Your task to perform on an android device: turn off picture-in-picture Image 0: 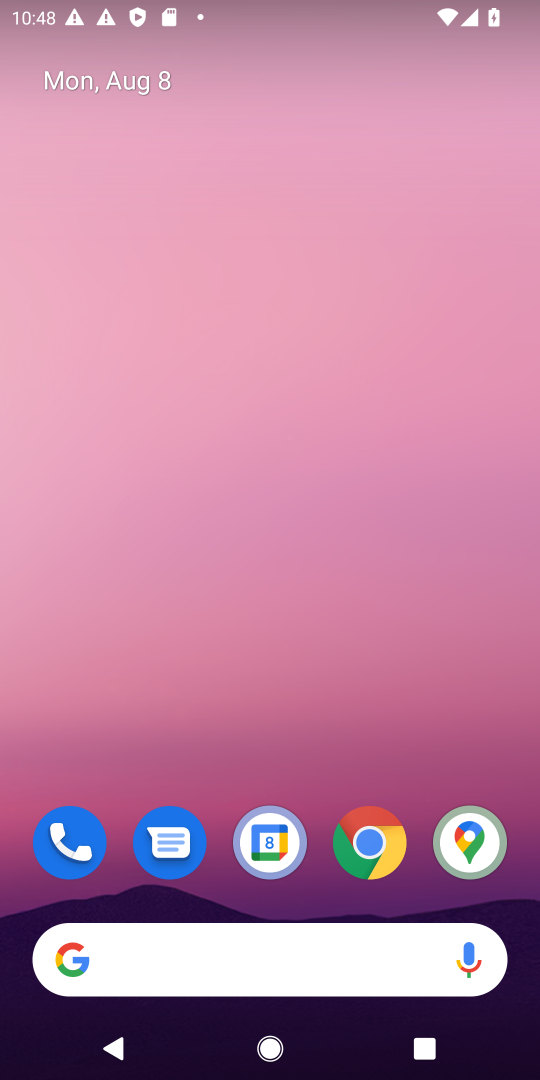
Step 0: click (377, 843)
Your task to perform on an android device: turn off picture-in-picture Image 1: 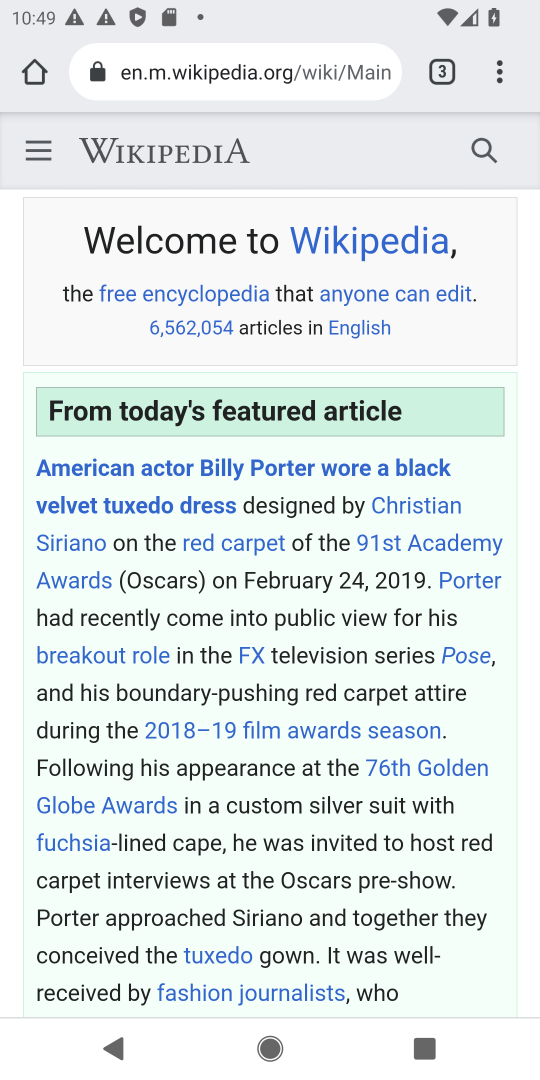
Step 1: click (502, 72)
Your task to perform on an android device: turn off picture-in-picture Image 2: 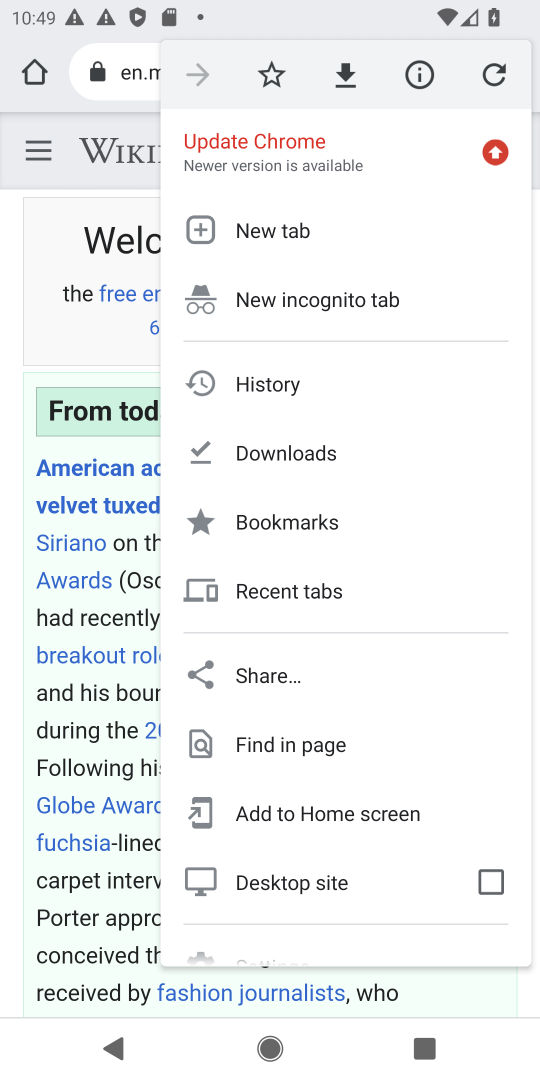
Step 2: task complete